Your task to perform on an android device: turn off notifications settings in the gmail app Image 0: 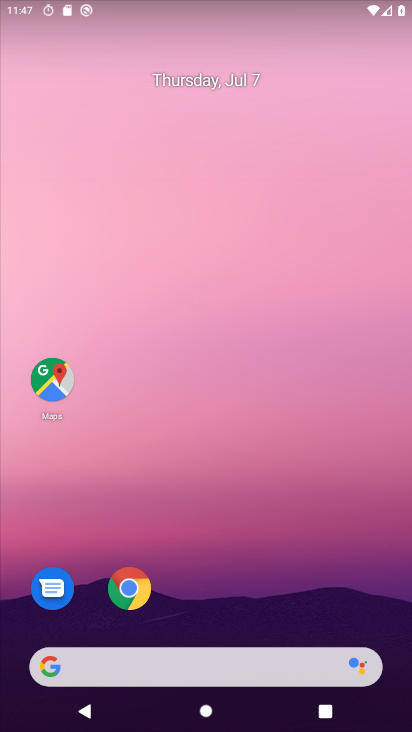
Step 0: drag from (151, 667) to (273, 100)
Your task to perform on an android device: turn off notifications settings in the gmail app Image 1: 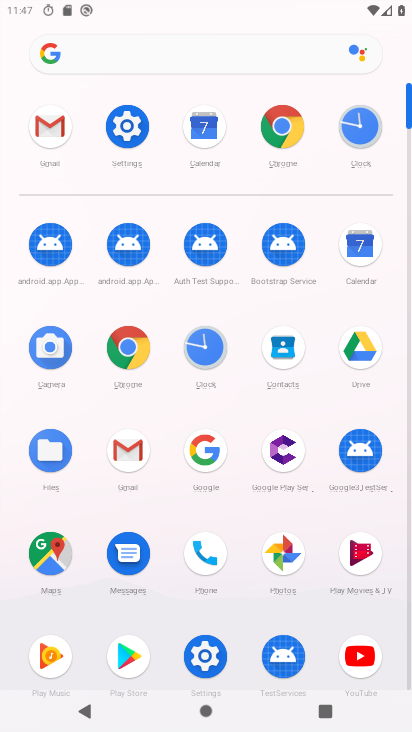
Step 1: click (50, 124)
Your task to perform on an android device: turn off notifications settings in the gmail app Image 2: 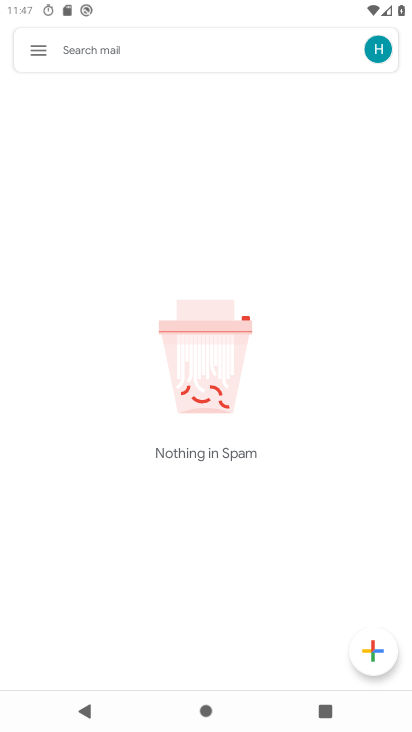
Step 2: click (36, 53)
Your task to perform on an android device: turn off notifications settings in the gmail app Image 3: 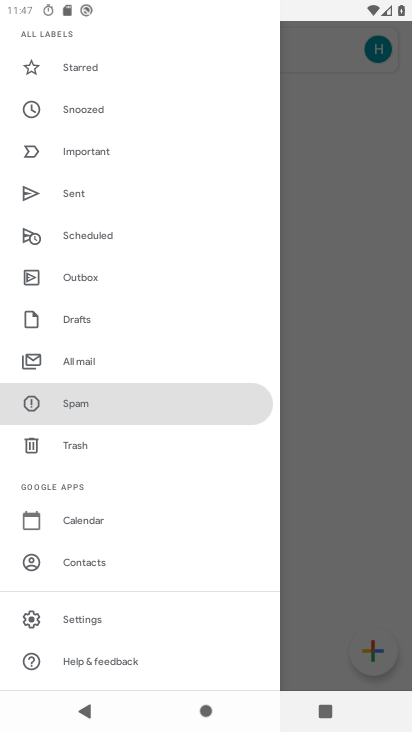
Step 3: click (84, 614)
Your task to perform on an android device: turn off notifications settings in the gmail app Image 4: 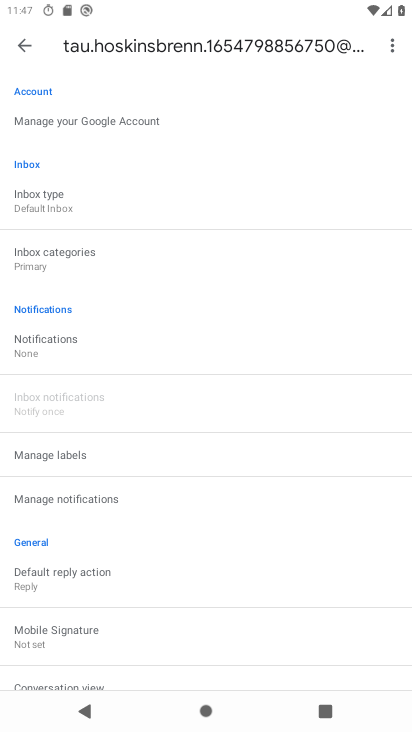
Step 4: click (68, 346)
Your task to perform on an android device: turn off notifications settings in the gmail app Image 5: 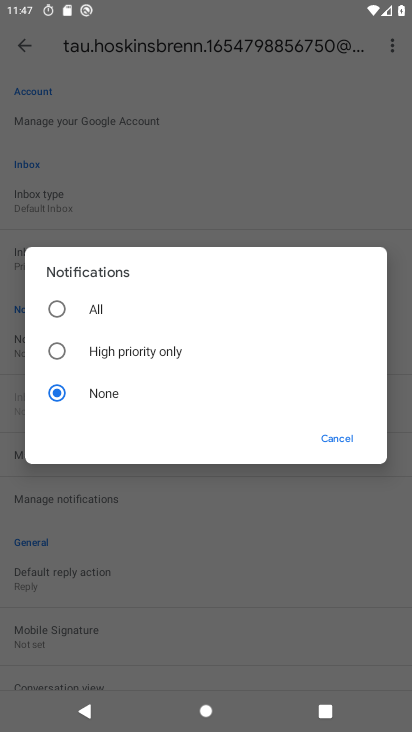
Step 5: task complete